Your task to perform on an android device: Open Google Chrome and open the bookmarks view Image 0: 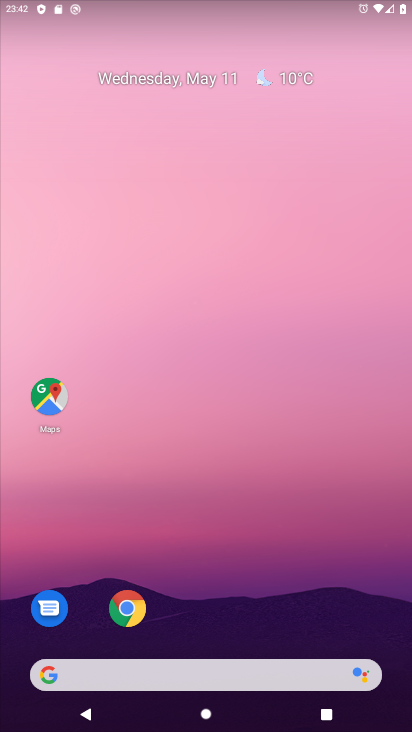
Step 0: click (130, 610)
Your task to perform on an android device: Open Google Chrome and open the bookmarks view Image 1: 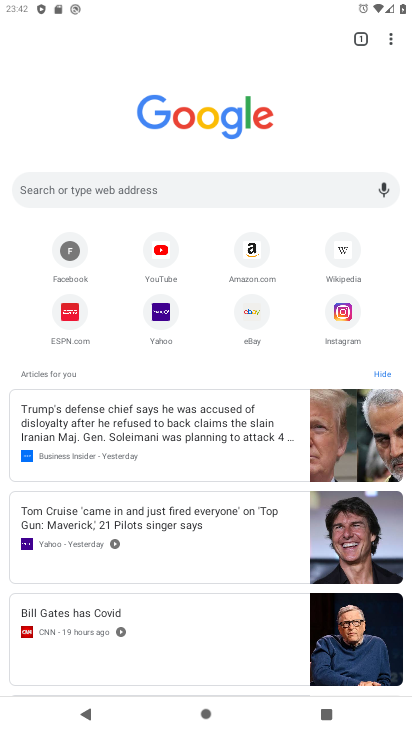
Step 1: click (392, 42)
Your task to perform on an android device: Open Google Chrome and open the bookmarks view Image 2: 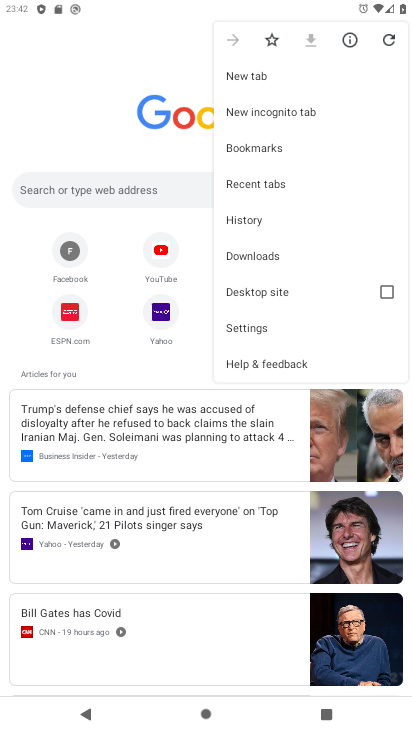
Step 2: click (261, 147)
Your task to perform on an android device: Open Google Chrome and open the bookmarks view Image 3: 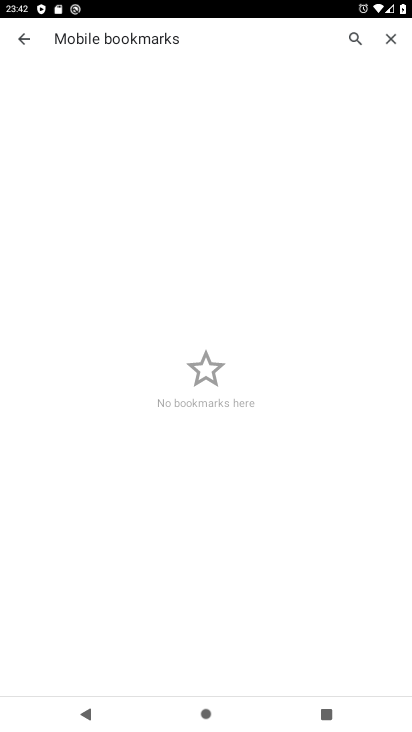
Step 3: task complete